Your task to perform on an android device: turn on wifi Image 0: 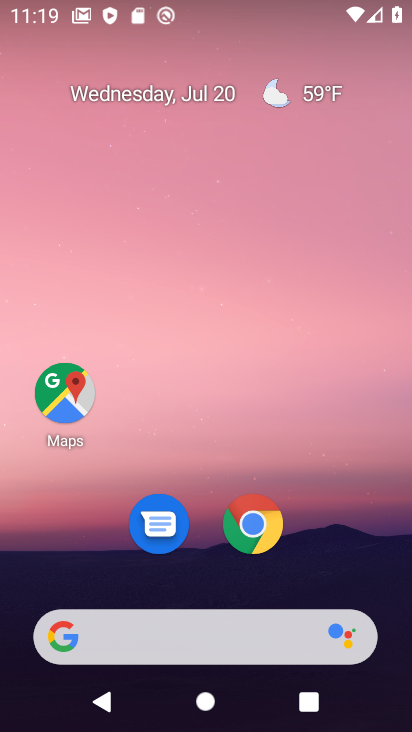
Step 0: drag from (185, 637) to (259, 43)
Your task to perform on an android device: turn on wifi Image 1: 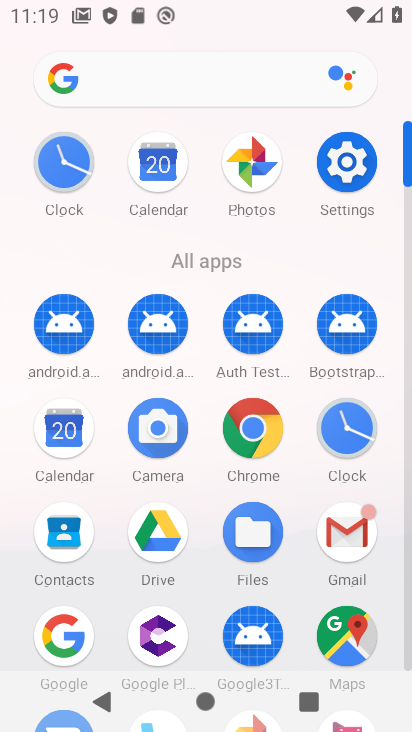
Step 1: click (339, 169)
Your task to perform on an android device: turn on wifi Image 2: 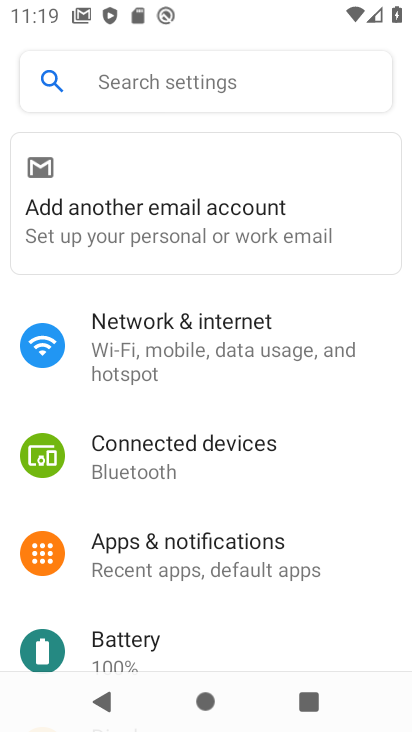
Step 2: click (198, 317)
Your task to perform on an android device: turn on wifi Image 3: 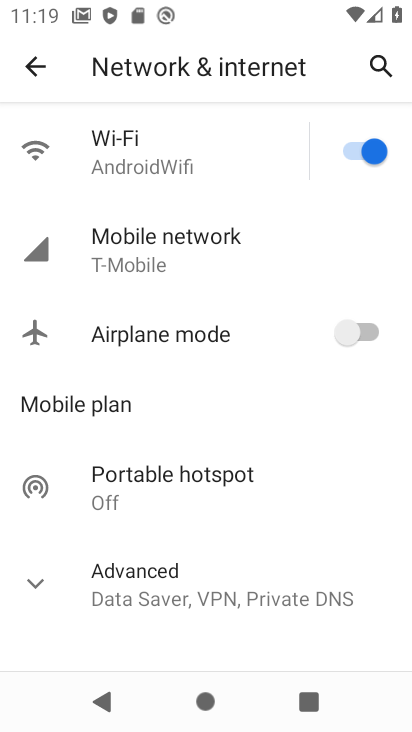
Step 3: task complete